Your task to perform on an android device: Open internet settings Image 0: 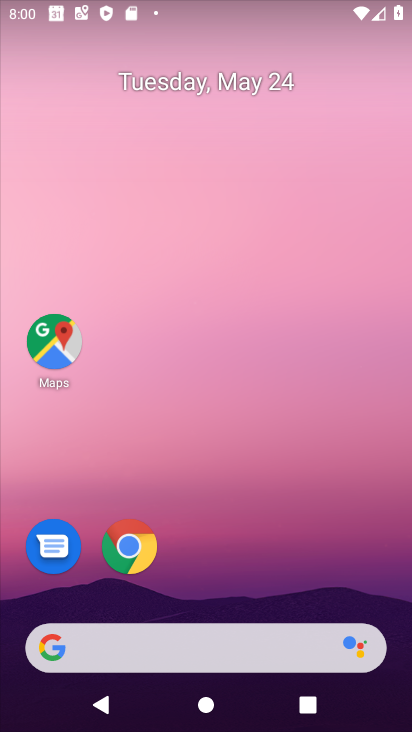
Step 0: drag from (272, 555) to (282, 45)
Your task to perform on an android device: Open internet settings Image 1: 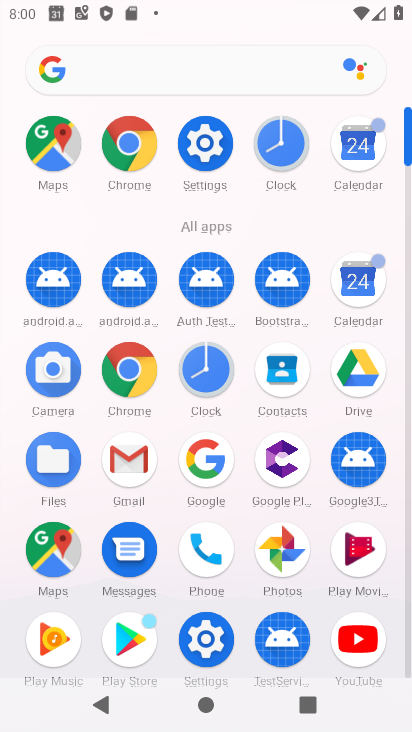
Step 1: click (211, 135)
Your task to perform on an android device: Open internet settings Image 2: 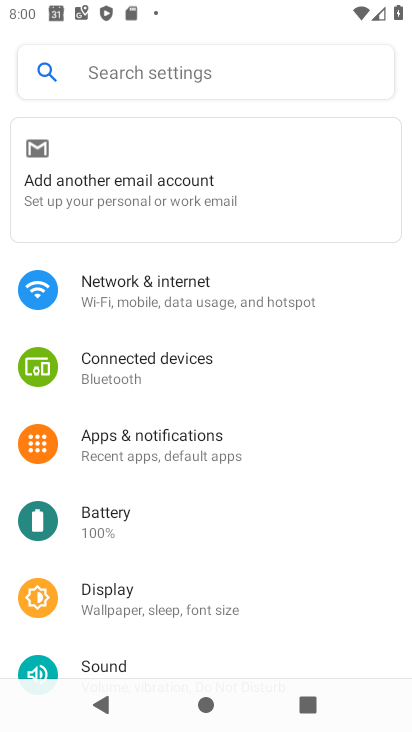
Step 2: click (159, 287)
Your task to perform on an android device: Open internet settings Image 3: 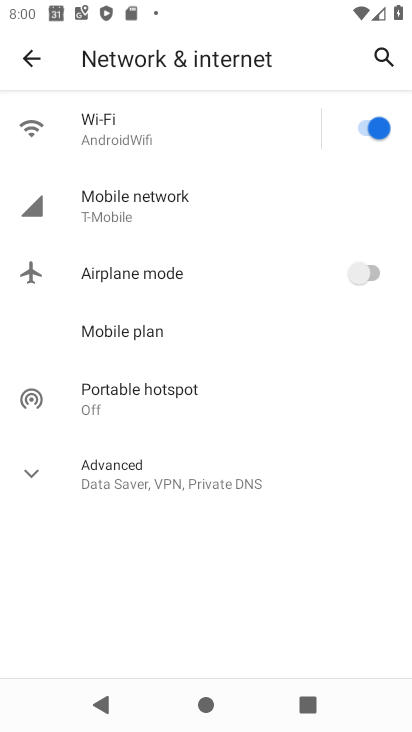
Step 3: task complete